Your task to perform on an android device: Toggle the flashlight Image 0: 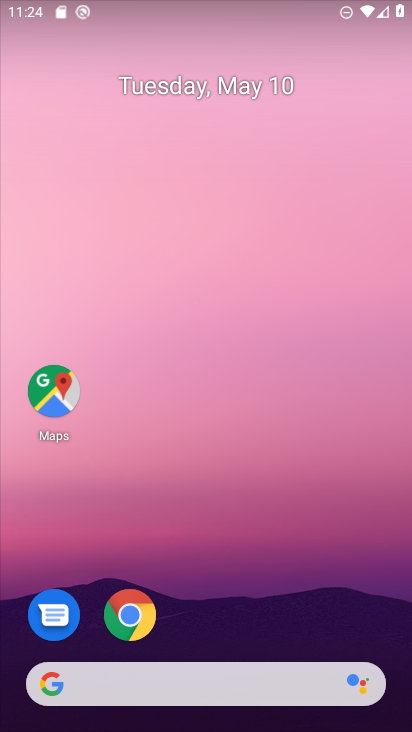
Step 0: drag from (187, 580) to (228, 154)
Your task to perform on an android device: Toggle the flashlight Image 1: 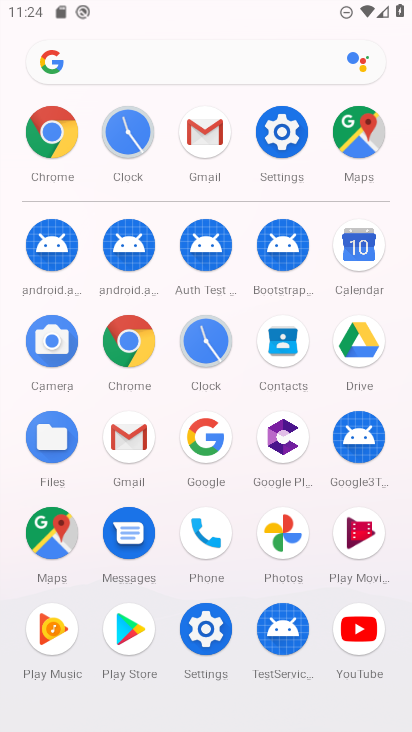
Step 1: click (177, 74)
Your task to perform on an android device: Toggle the flashlight Image 2: 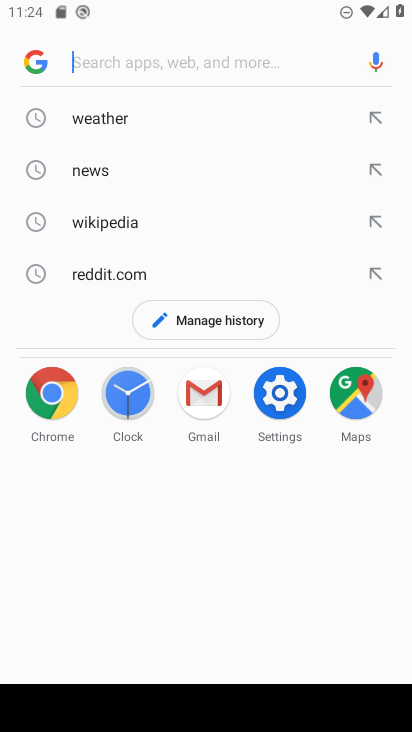
Step 2: press home button
Your task to perform on an android device: Toggle the flashlight Image 3: 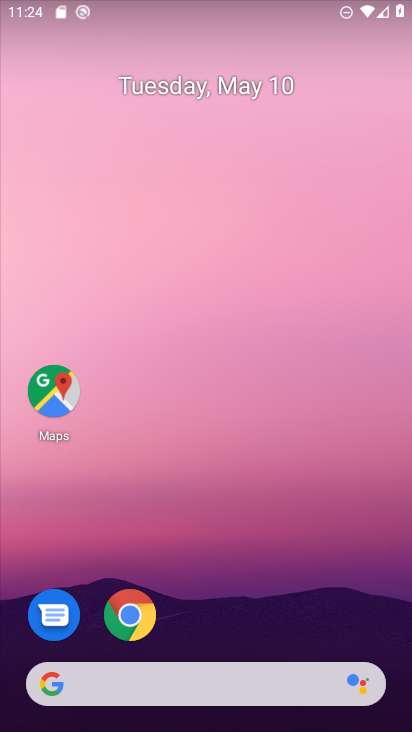
Step 3: drag from (204, 628) to (256, 244)
Your task to perform on an android device: Toggle the flashlight Image 4: 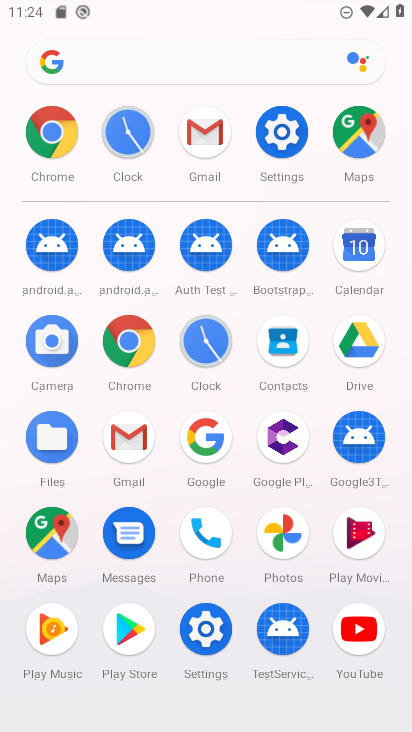
Step 4: click (281, 139)
Your task to perform on an android device: Toggle the flashlight Image 5: 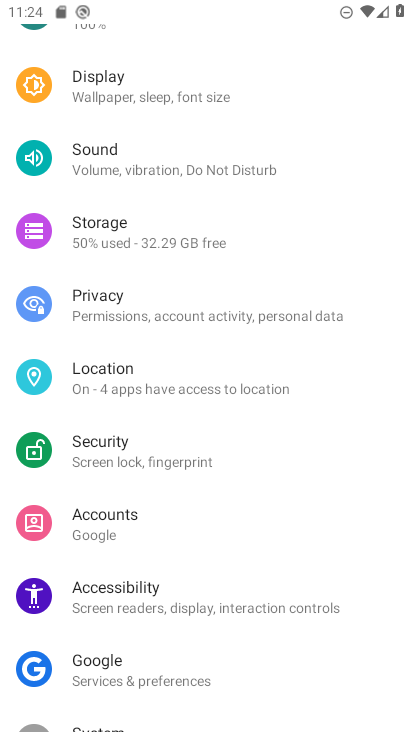
Step 5: drag from (183, 148) to (210, 533)
Your task to perform on an android device: Toggle the flashlight Image 6: 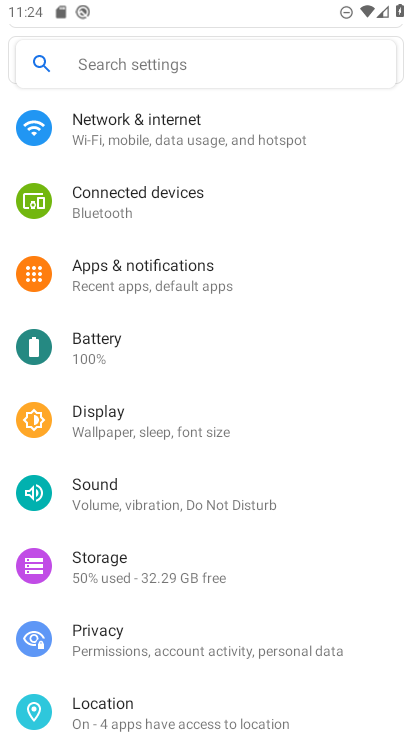
Step 6: click (133, 63)
Your task to perform on an android device: Toggle the flashlight Image 7: 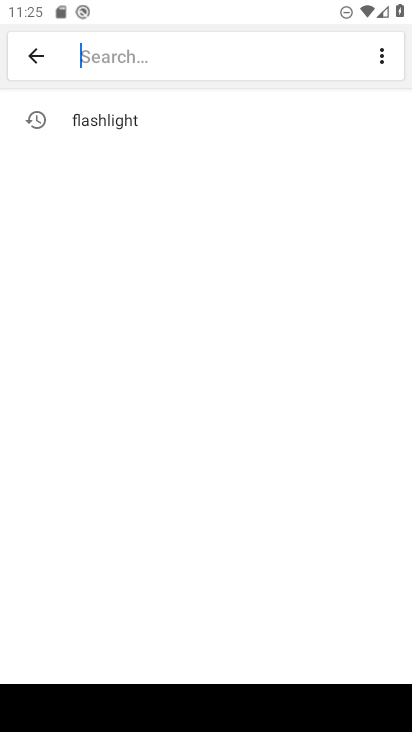
Step 7: click (140, 142)
Your task to perform on an android device: Toggle the flashlight Image 8: 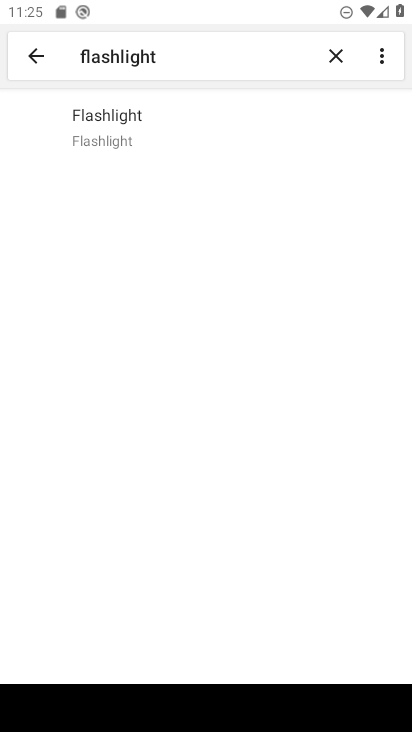
Step 8: click (140, 142)
Your task to perform on an android device: Toggle the flashlight Image 9: 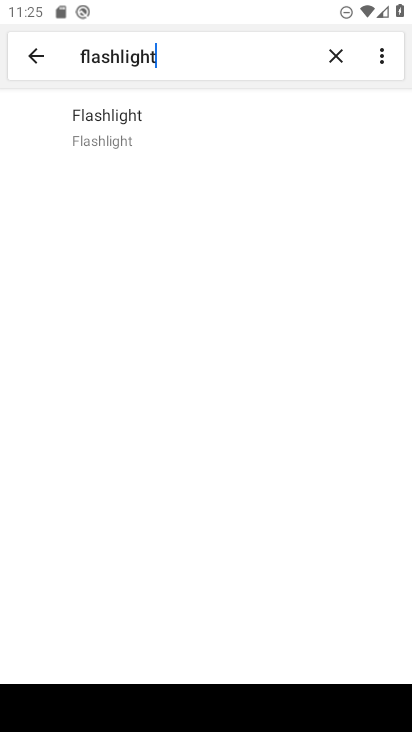
Step 9: task complete